Your task to perform on an android device: Go to settings Image 0: 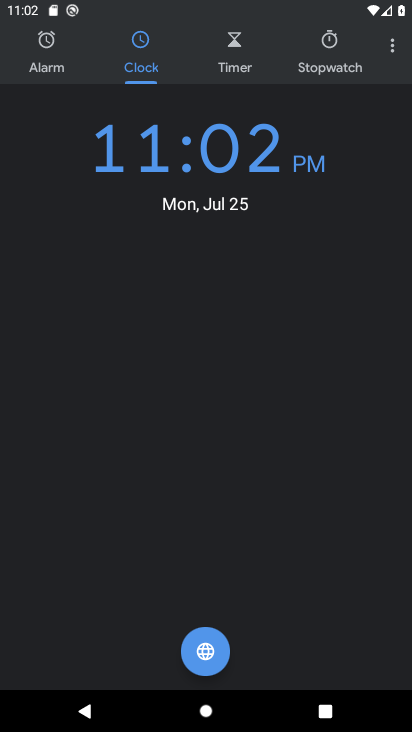
Step 0: press home button
Your task to perform on an android device: Go to settings Image 1: 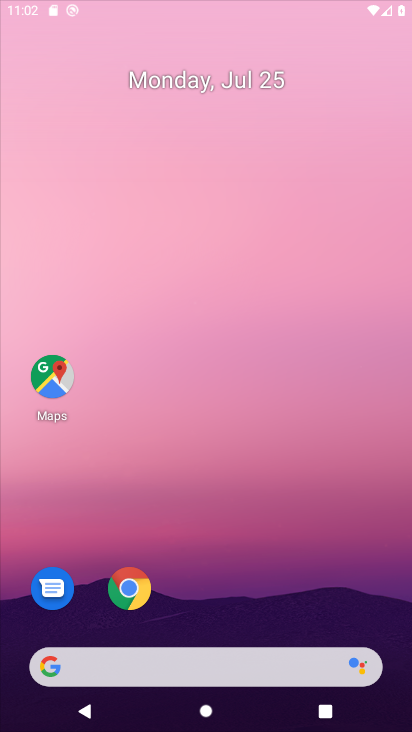
Step 1: drag from (266, 492) to (302, 215)
Your task to perform on an android device: Go to settings Image 2: 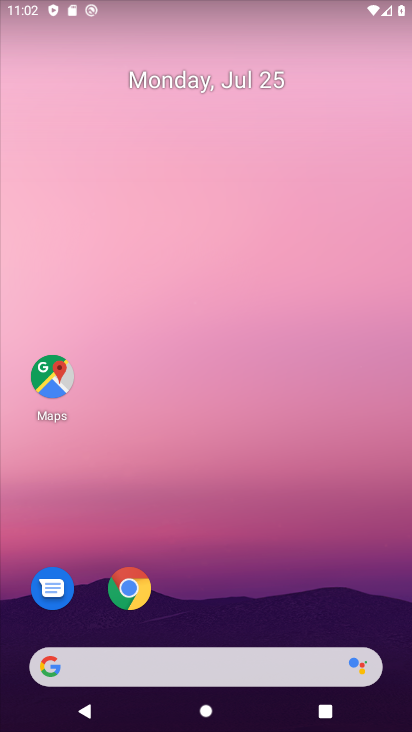
Step 2: drag from (241, 297) to (252, 186)
Your task to perform on an android device: Go to settings Image 3: 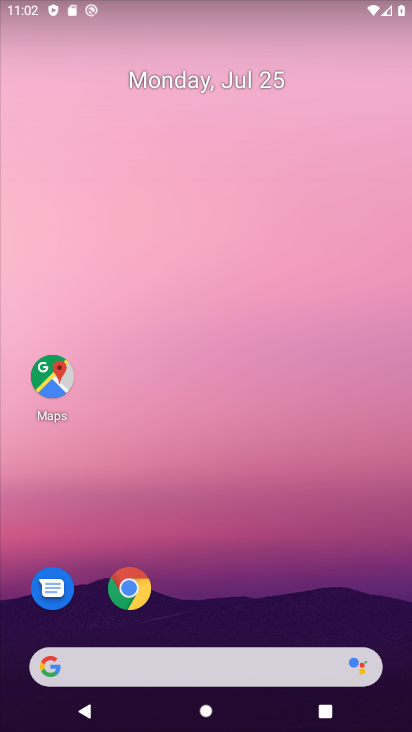
Step 3: drag from (218, 413) to (296, 29)
Your task to perform on an android device: Go to settings Image 4: 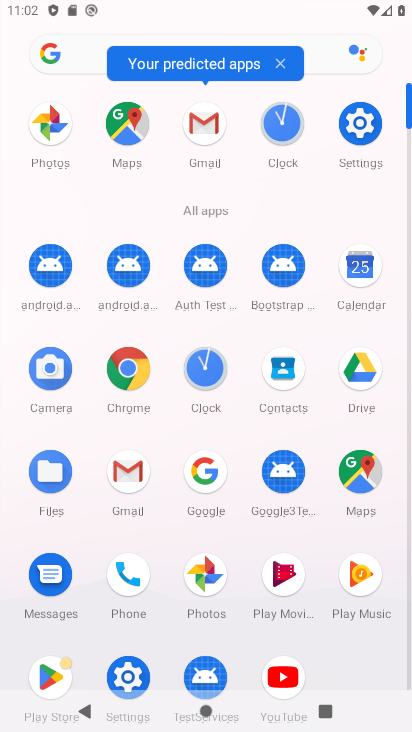
Step 4: click (371, 124)
Your task to perform on an android device: Go to settings Image 5: 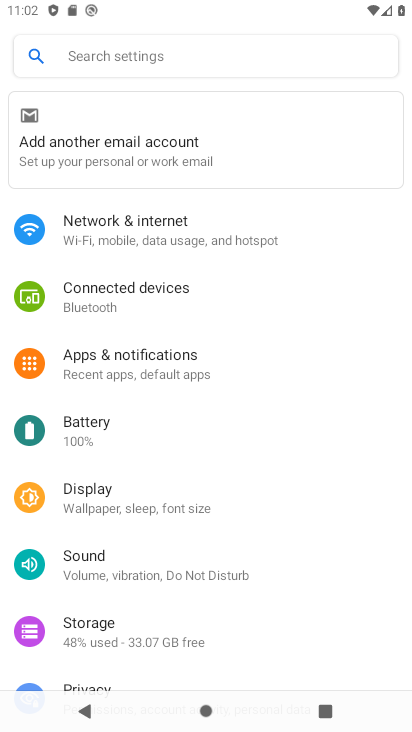
Step 5: task complete